Your task to perform on an android device: check android version Image 0: 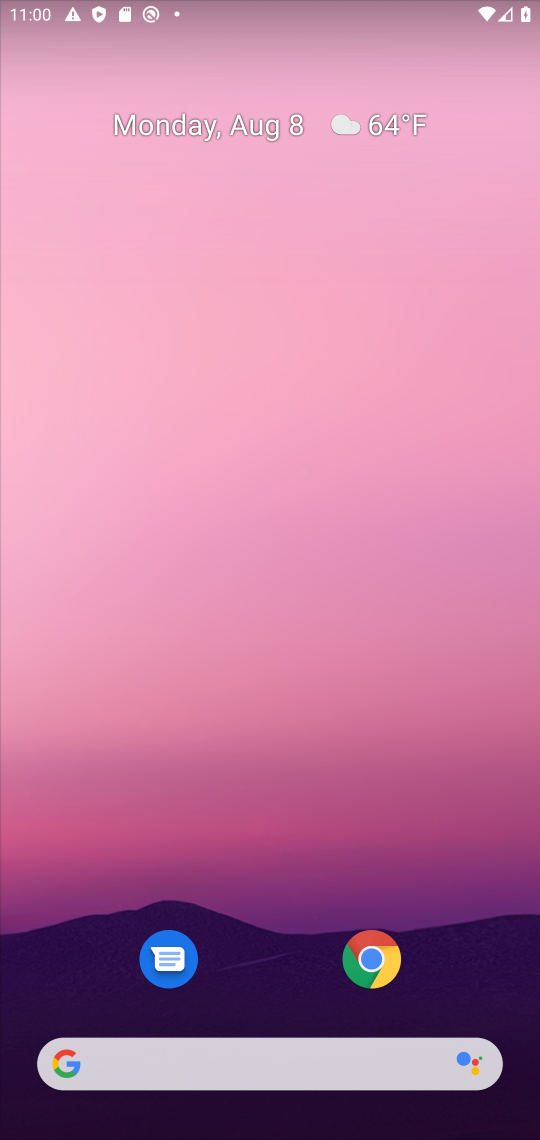
Step 0: drag from (485, 999) to (333, 188)
Your task to perform on an android device: check android version Image 1: 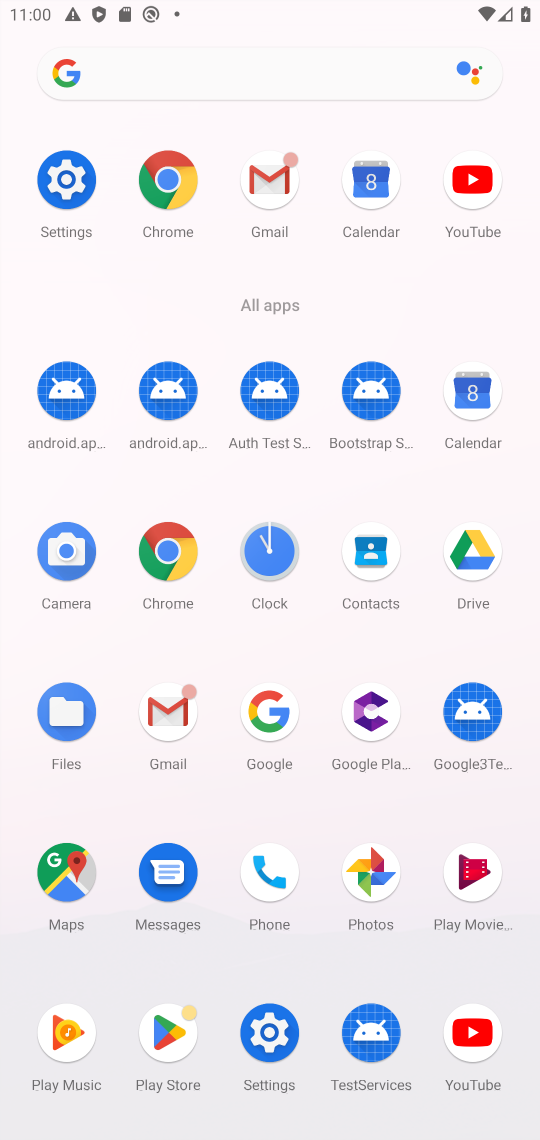
Step 1: click (62, 200)
Your task to perform on an android device: check android version Image 2: 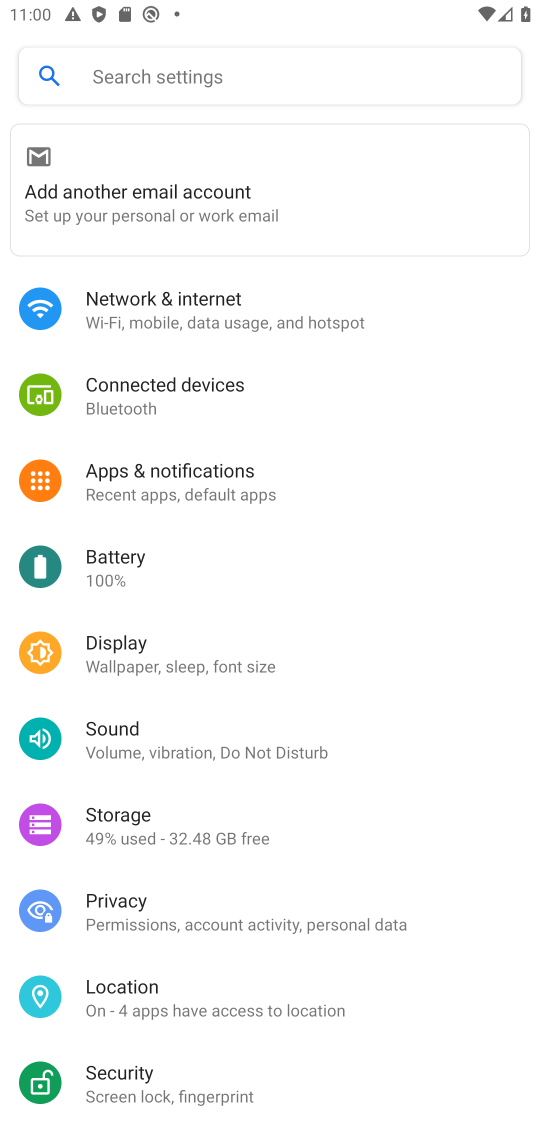
Step 2: drag from (276, 1088) to (259, 325)
Your task to perform on an android device: check android version Image 3: 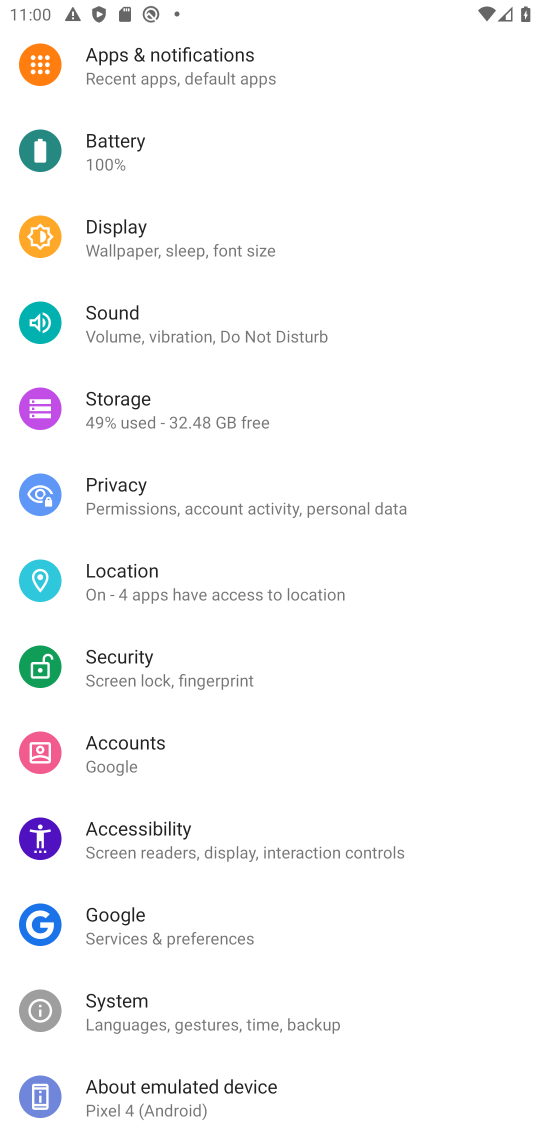
Step 3: drag from (287, 1042) to (267, 409)
Your task to perform on an android device: check android version Image 4: 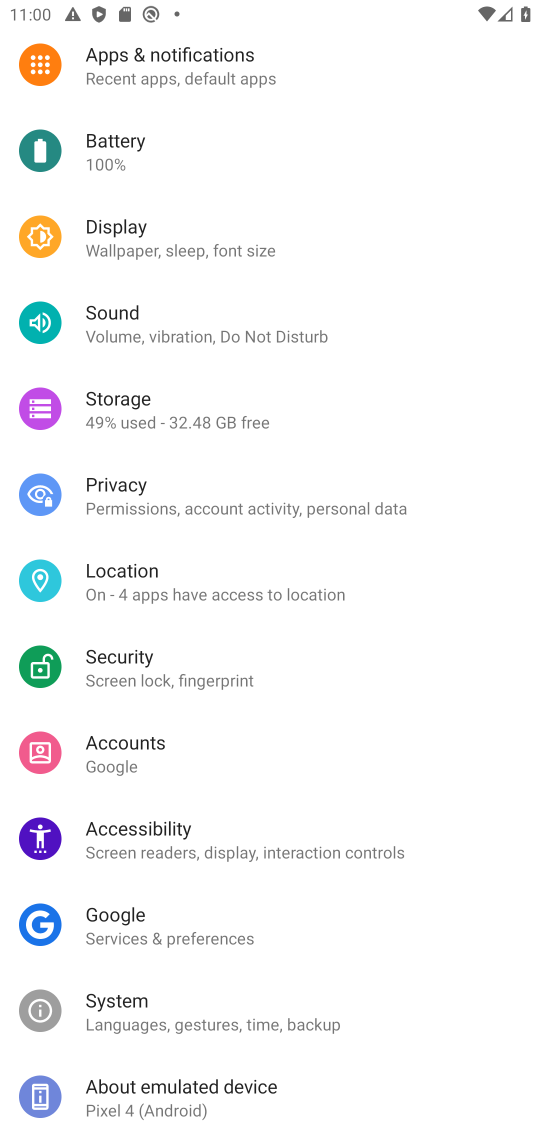
Step 4: click (201, 1109)
Your task to perform on an android device: check android version Image 5: 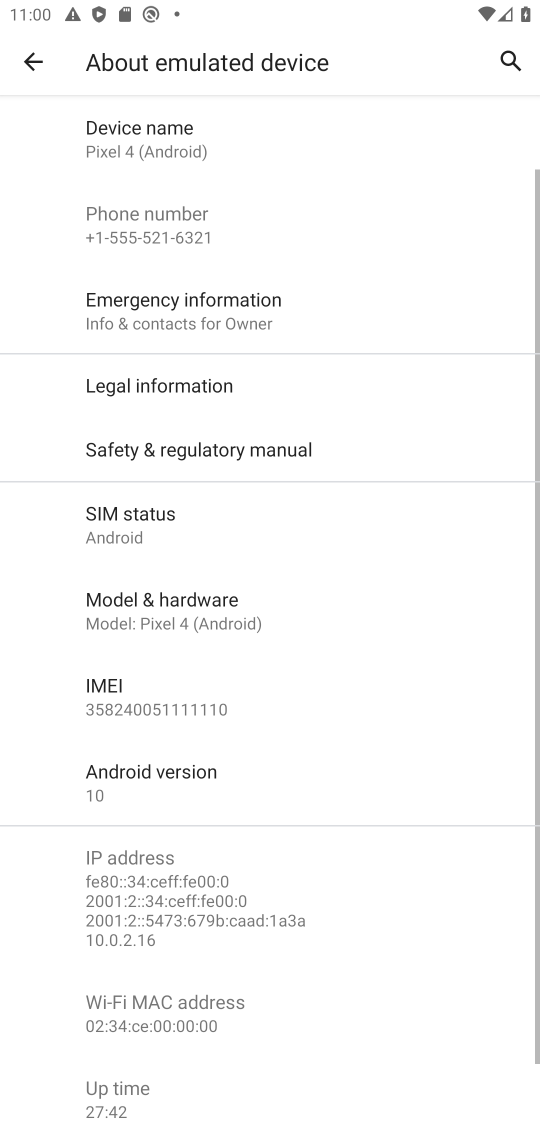
Step 5: click (257, 783)
Your task to perform on an android device: check android version Image 6: 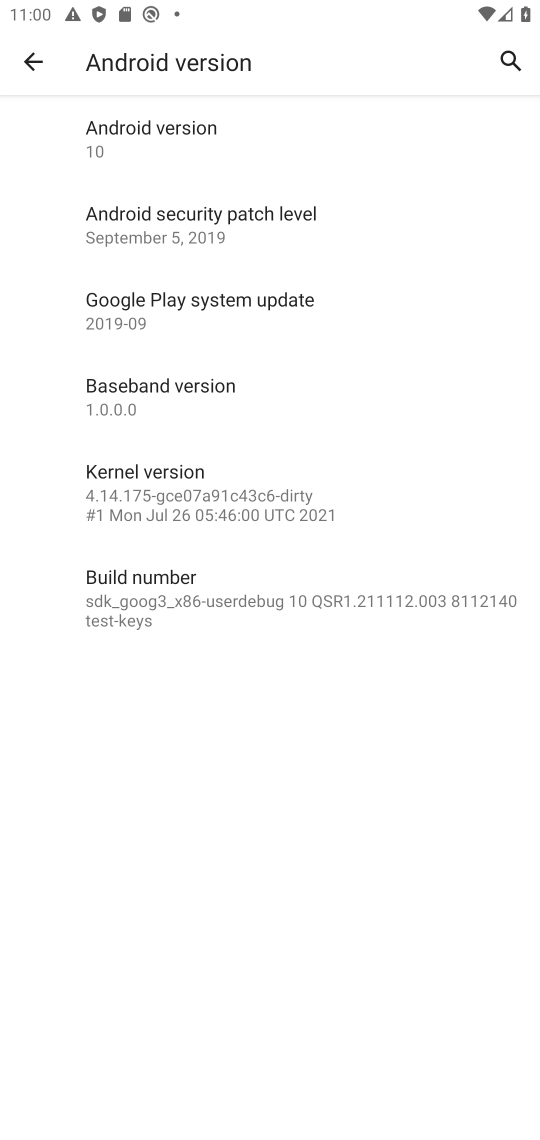
Step 6: task complete